Your task to perform on an android device: Open Android settings Image 0: 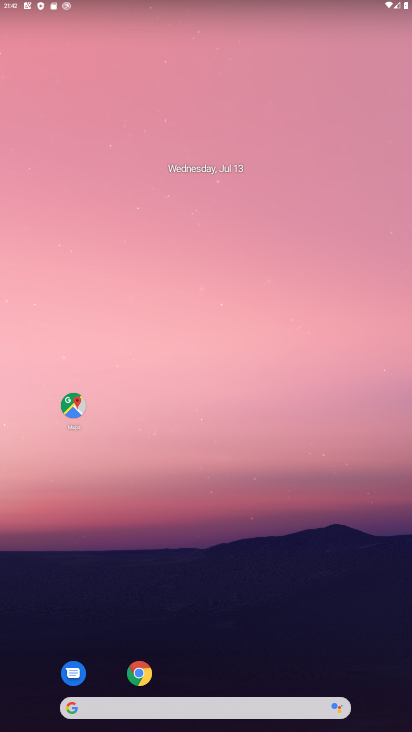
Step 0: drag from (203, 670) to (205, 52)
Your task to perform on an android device: Open Android settings Image 1: 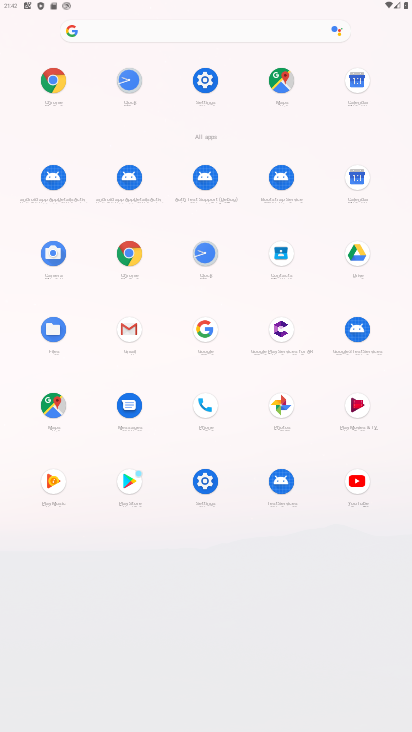
Step 1: click (210, 85)
Your task to perform on an android device: Open Android settings Image 2: 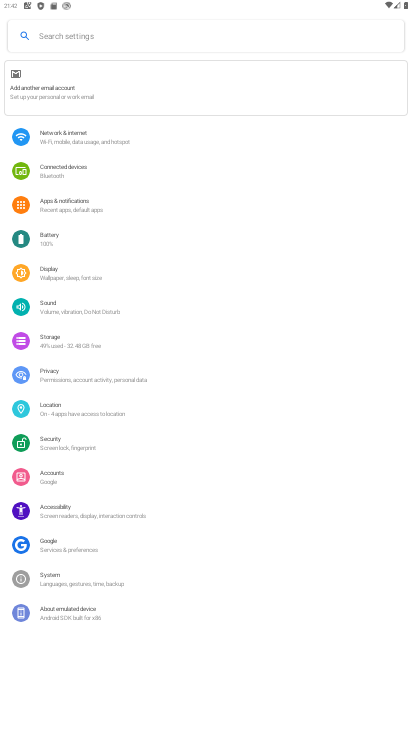
Step 2: task complete